Your task to perform on an android device: Clear the shopping cart on bestbuy. Add "razer blade" to the cart on bestbuy Image 0: 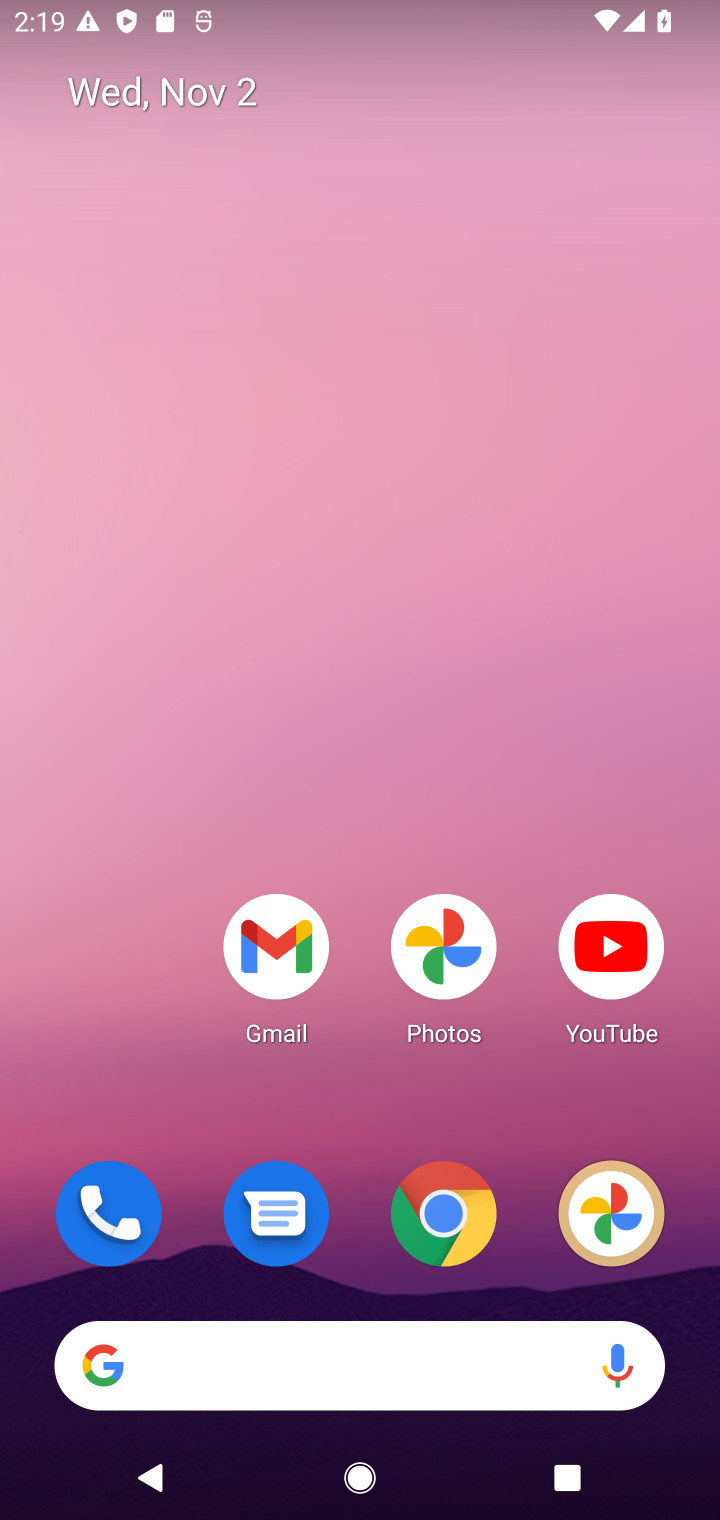
Step 0: click (454, 1225)
Your task to perform on an android device: Clear the shopping cart on bestbuy. Add "razer blade" to the cart on bestbuy Image 1: 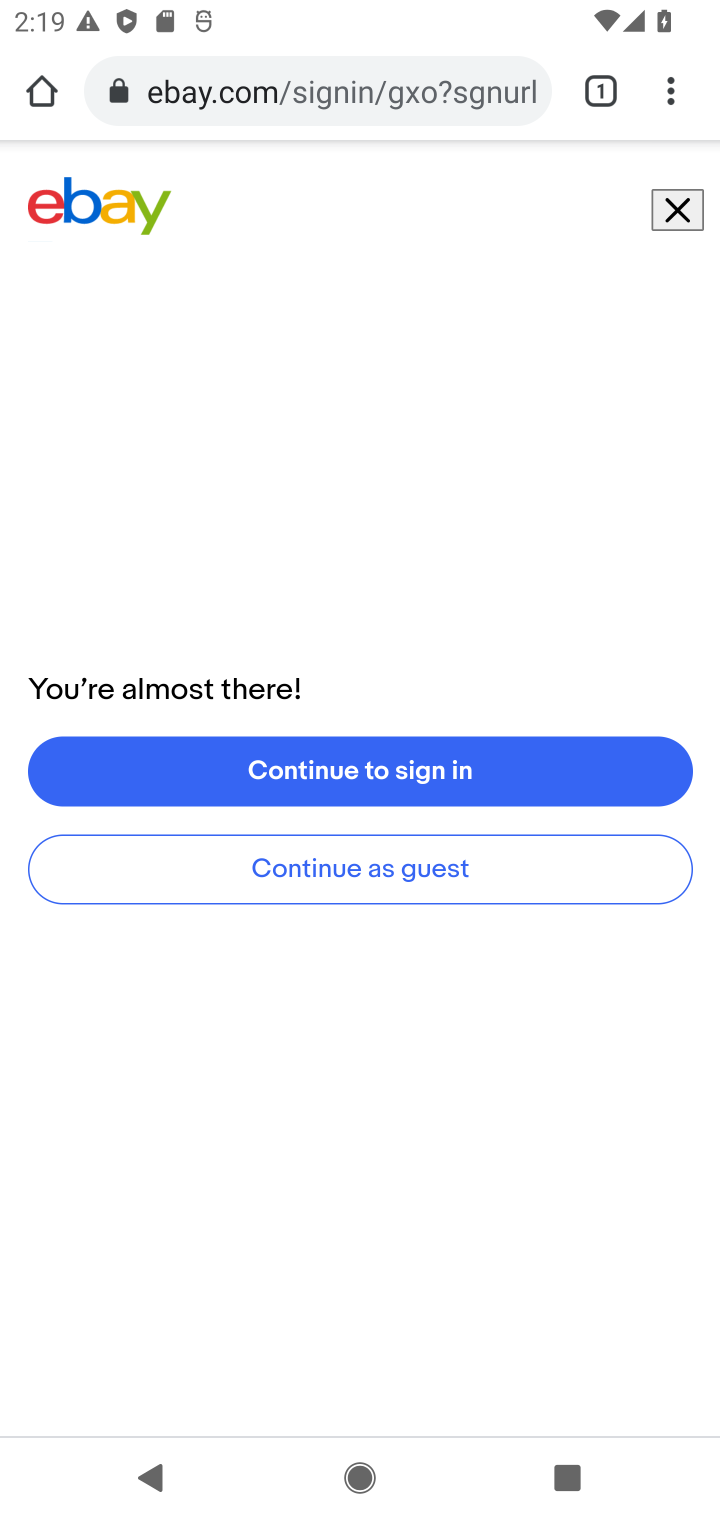
Step 1: click (354, 107)
Your task to perform on an android device: Clear the shopping cart on bestbuy. Add "razer blade" to the cart on bestbuy Image 2: 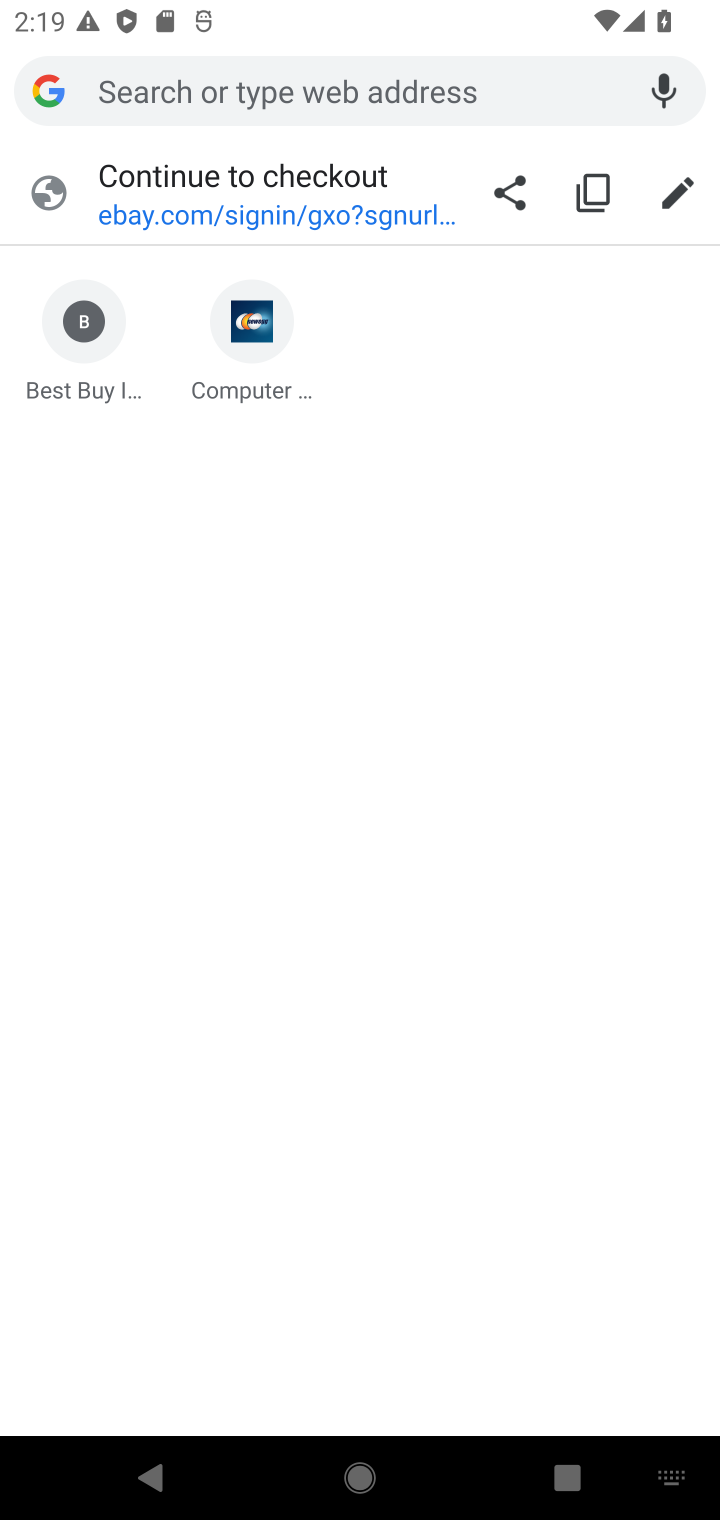
Step 2: click (84, 355)
Your task to perform on an android device: Clear the shopping cart on bestbuy. Add "razer blade" to the cart on bestbuy Image 3: 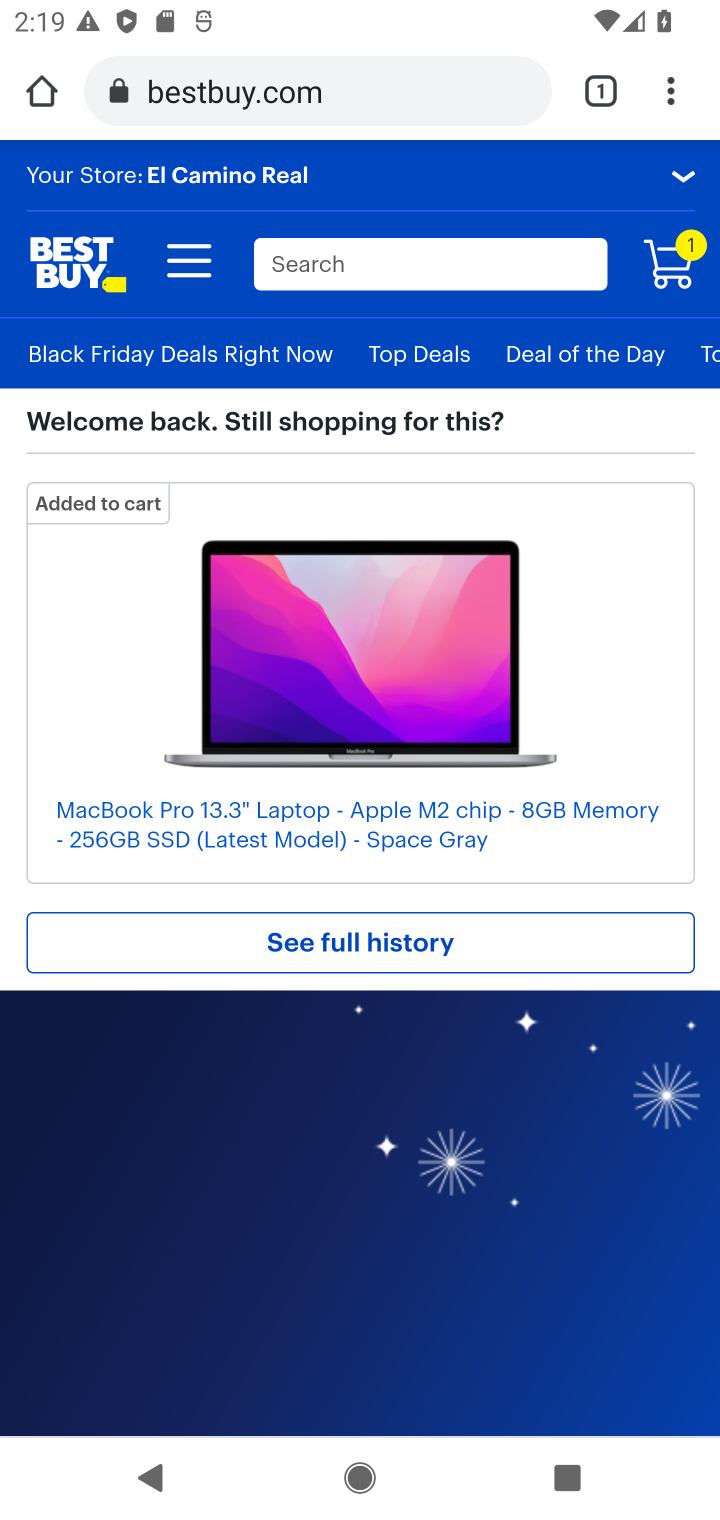
Step 3: click (674, 273)
Your task to perform on an android device: Clear the shopping cart on bestbuy. Add "razer blade" to the cart on bestbuy Image 4: 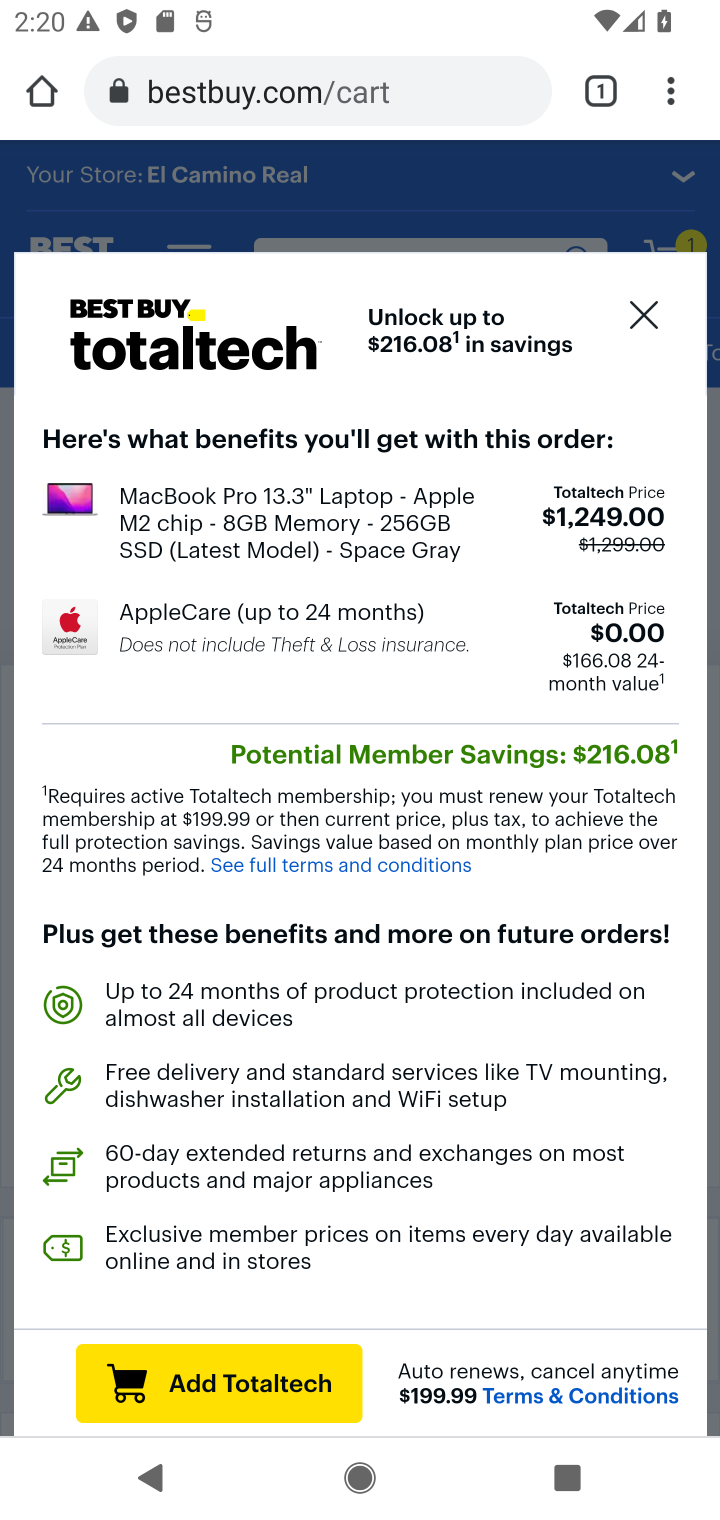
Step 4: click (648, 304)
Your task to perform on an android device: Clear the shopping cart on bestbuy. Add "razer blade" to the cart on bestbuy Image 5: 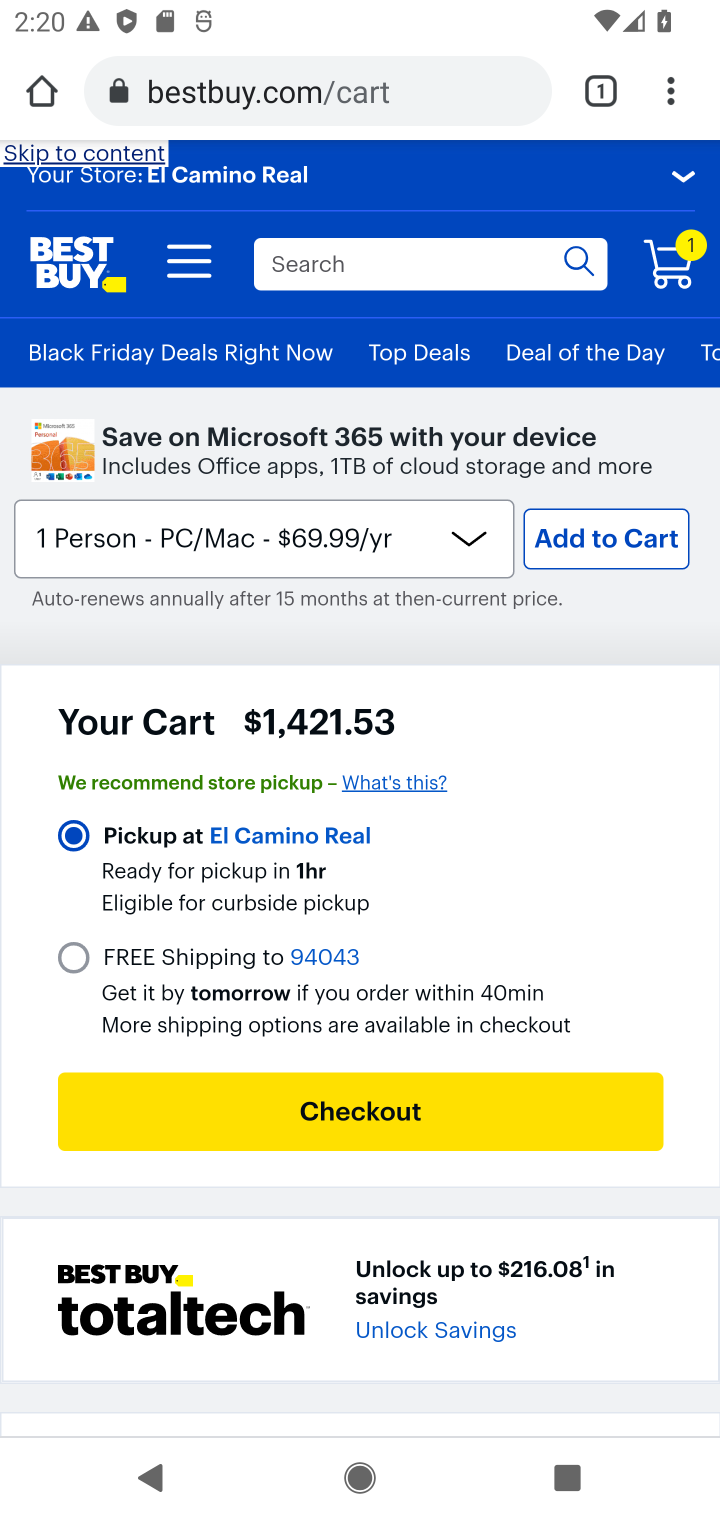
Step 5: drag from (287, 1205) to (201, 662)
Your task to perform on an android device: Clear the shopping cart on bestbuy. Add "razer blade" to the cart on bestbuy Image 6: 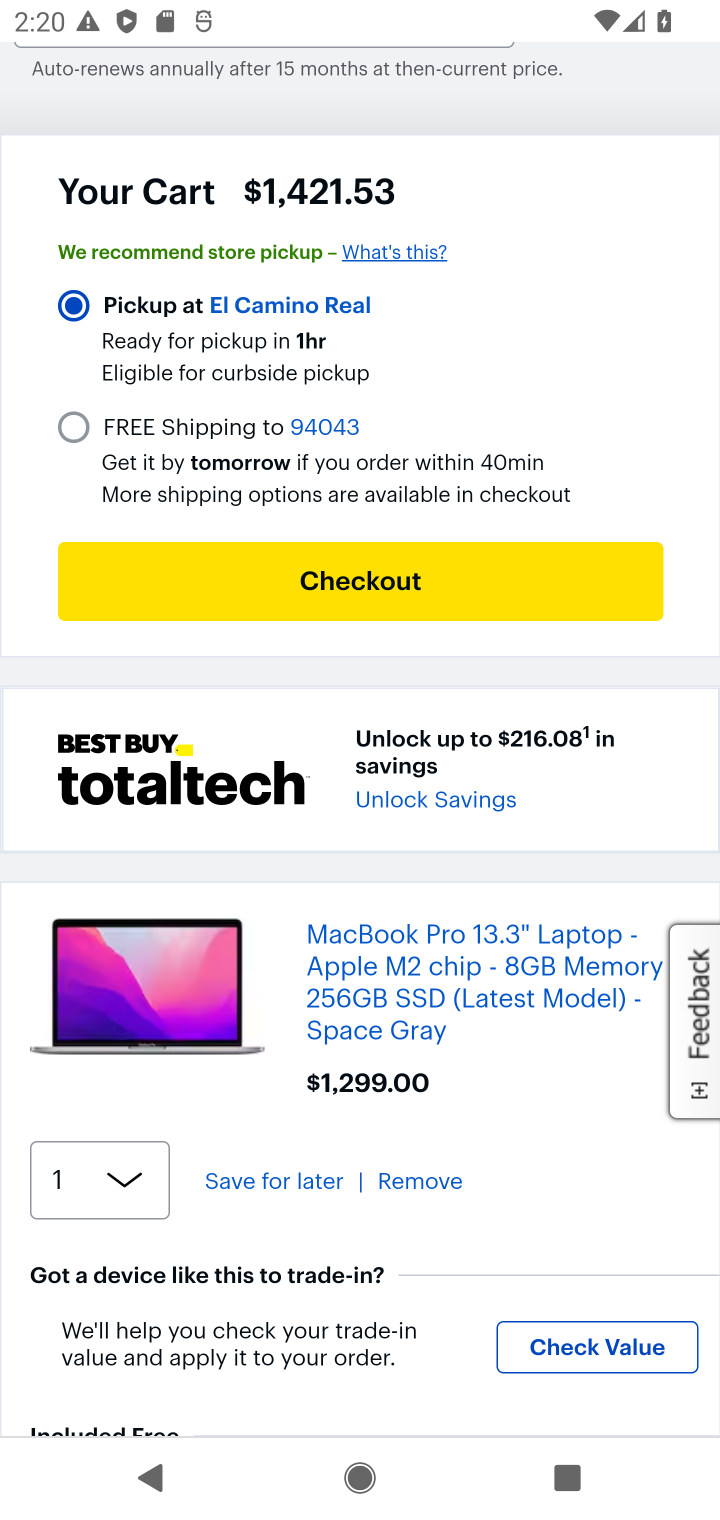
Step 6: click (428, 1183)
Your task to perform on an android device: Clear the shopping cart on bestbuy. Add "razer blade" to the cart on bestbuy Image 7: 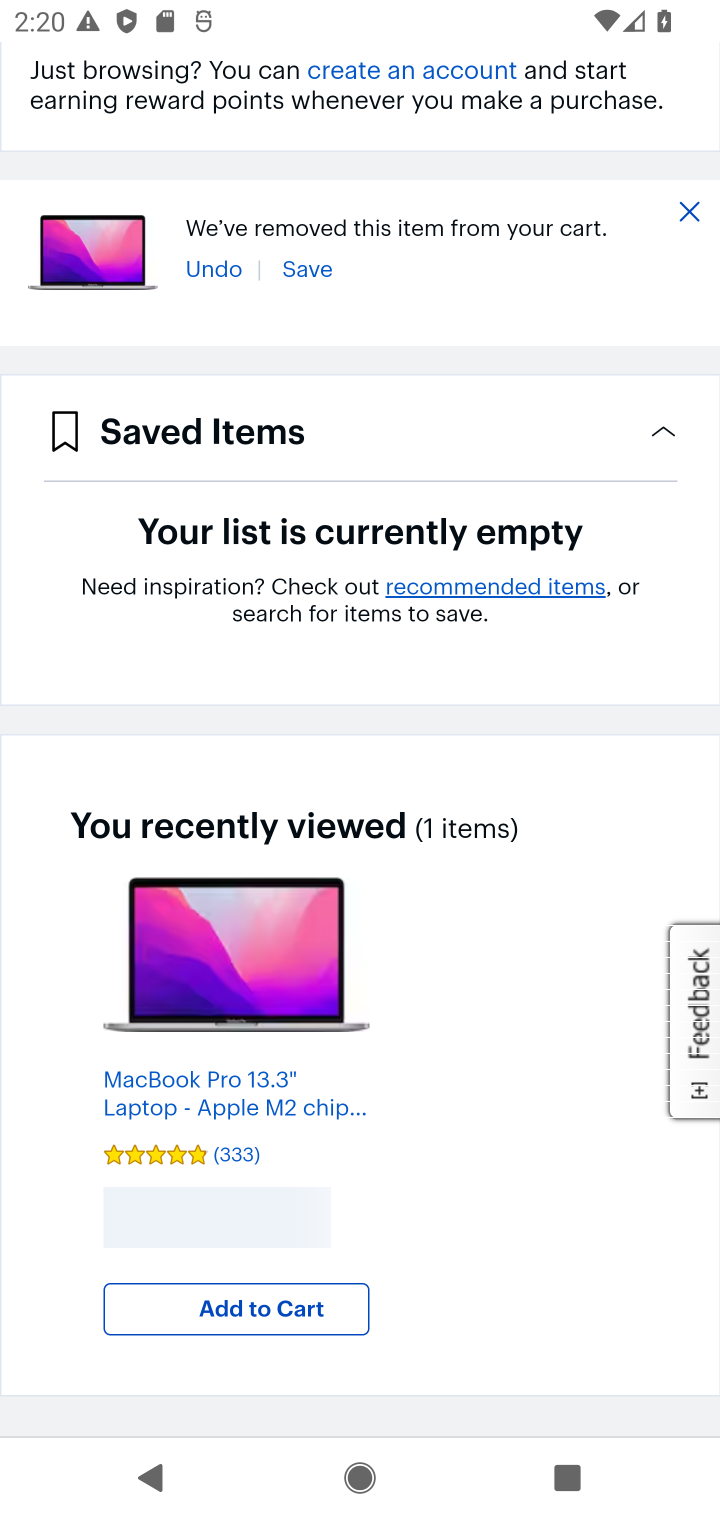
Step 7: drag from (385, 357) to (392, 794)
Your task to perform on an android device: Clear the shopping cart on bestbuy. Add "razer blade" to the cart on bestbuy Image 8: 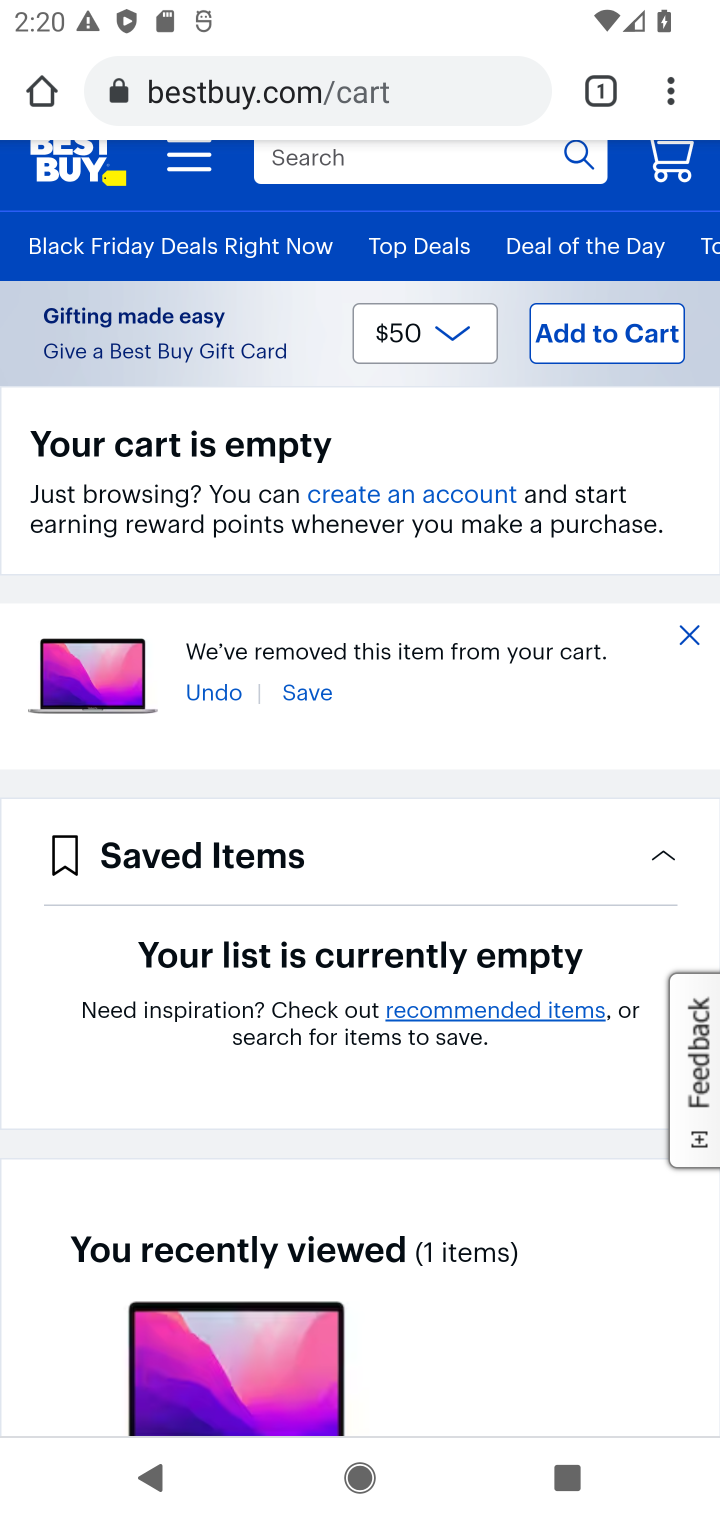
Step 8: click (544, 166)
Your task to perform on an android device: Clear the shopping cart on bestbuy. Add "razer blade" to the cart on bestbuy Image 9: 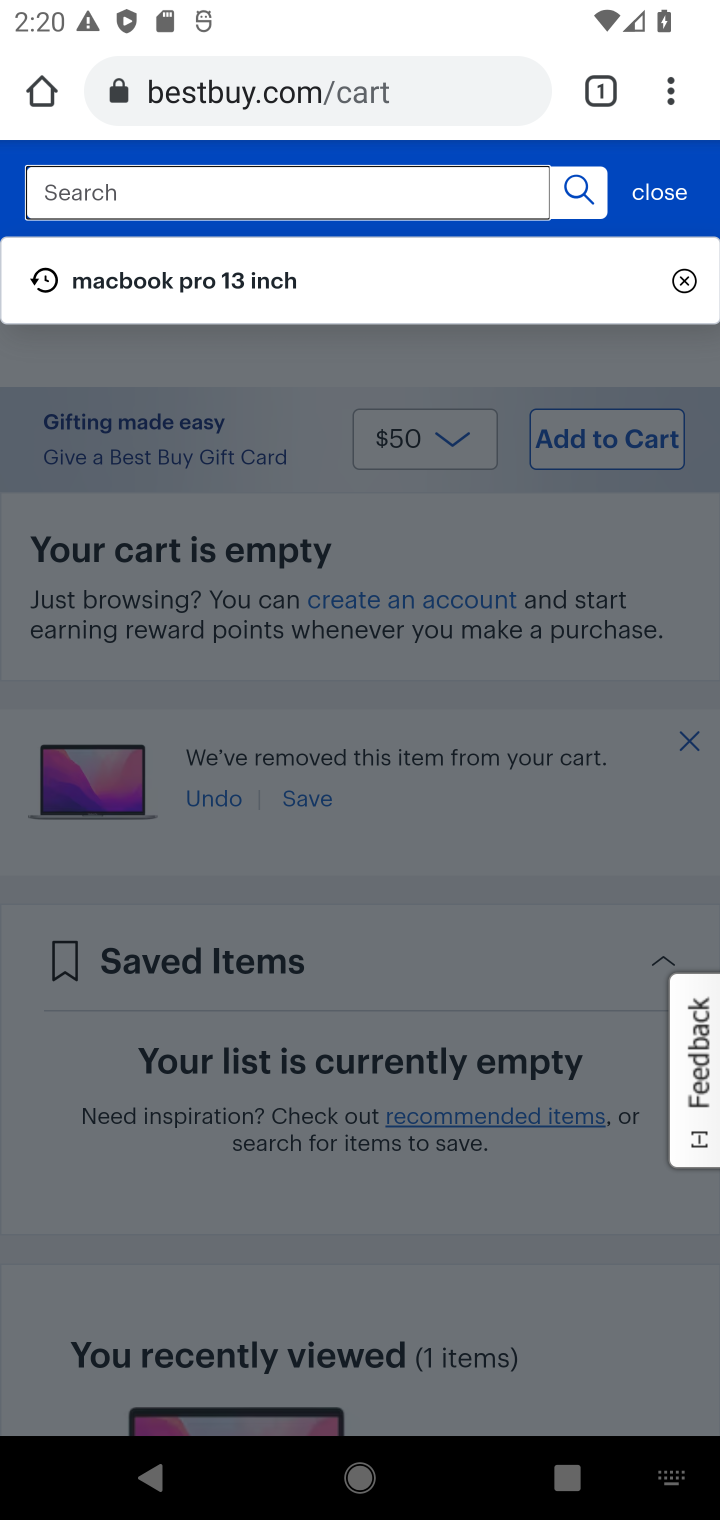
Step 9: type "razer blade"
Your task to perform on an android device: Clear the shopping cart on bestbuy. Add "razer blade" to the cart on bestbuy Image 10: 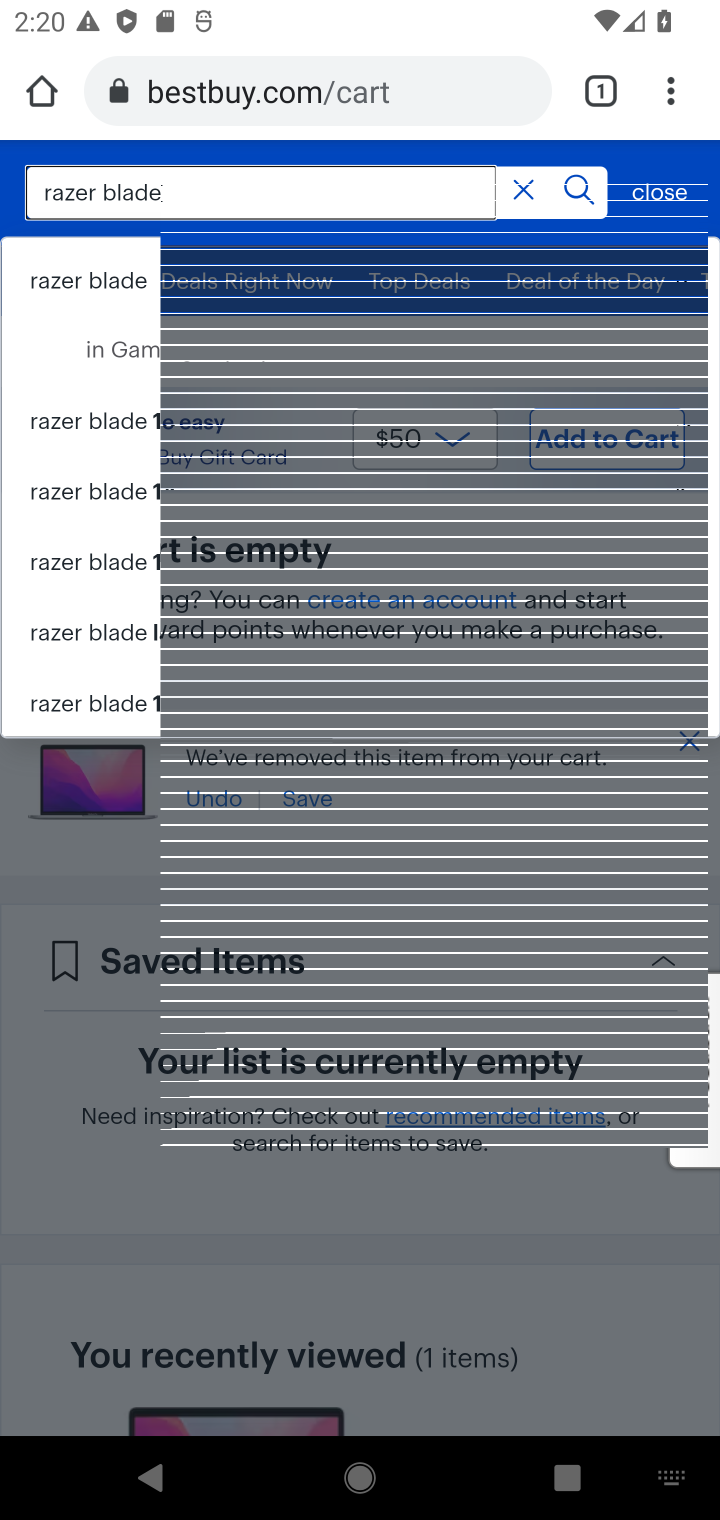
Step 10: click (92, 284)
Your task to perform on an android device: Clear the shopping cart on bestbuy. Add "razer blade" to the cart on bestbuy Image 11: 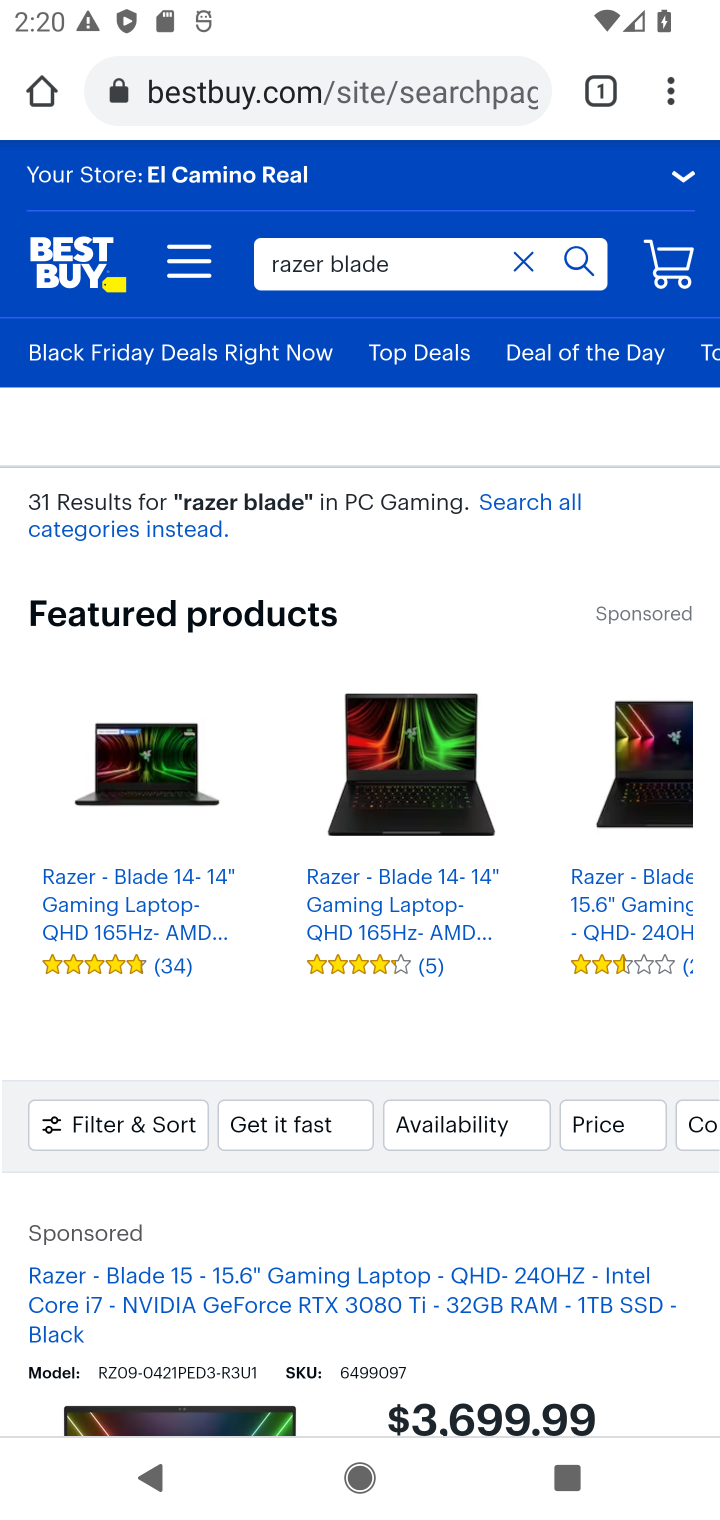
Step 11: drag from (401, 1212) to (430, 683)
Your task to perform on an android device: Clear the shopping cart on bestbuy. Add "razer blade" to the cart on bestbuy Image 12: 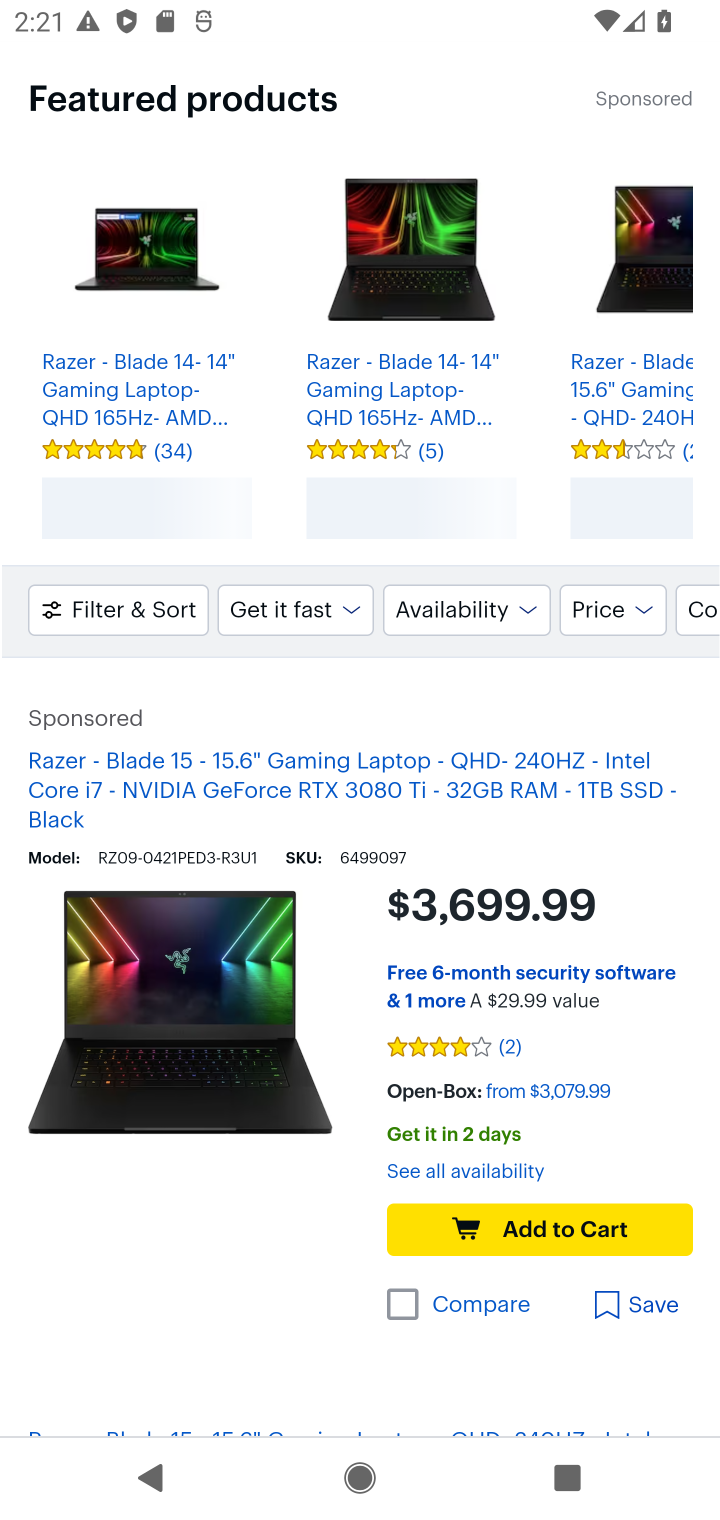
Step 12: click (516, 1232)
Your task to perform on an android device: Clear the shopping cart on bestbuy. Add "razer blade" to the cart on bestbuy Image 13: 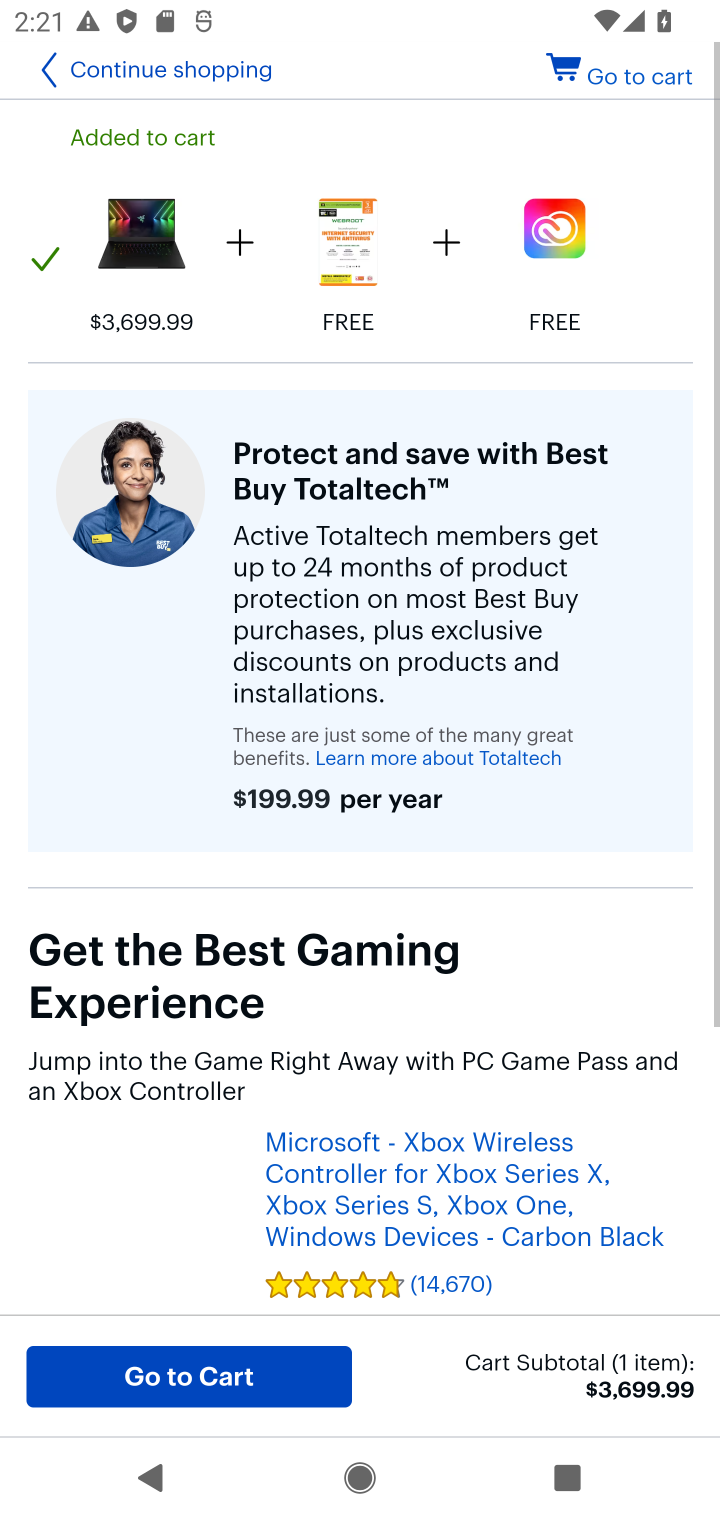
Step 13: task complete